Your task to perform on an android device: open app "Pandora - Music & Podcasts" (install if not already installed) Image 0: 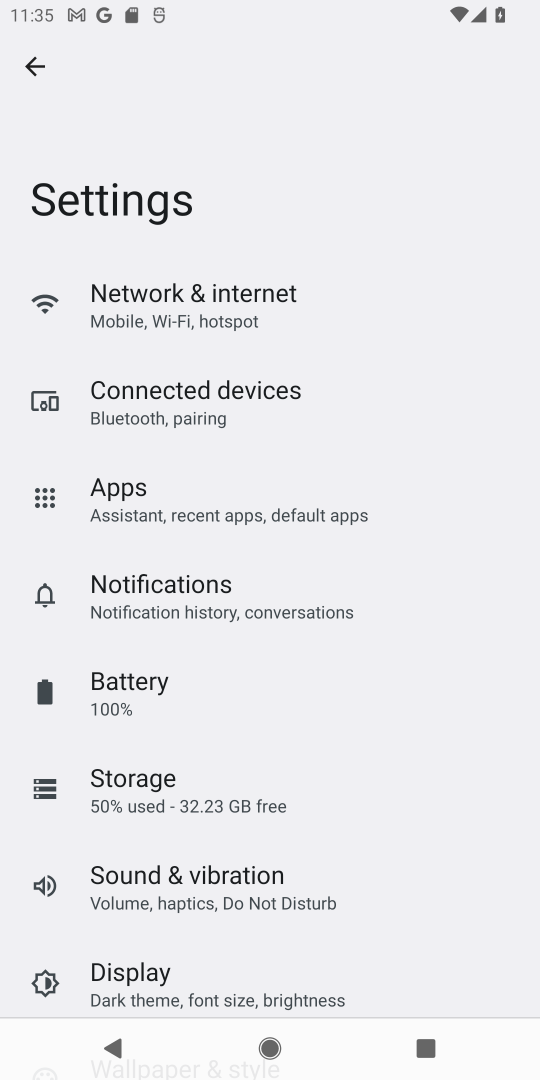
Step 0: press home button
Your task to perform on an android device: open app "Pandora - Music & Podcasts" (install if not already installed) Image 1: 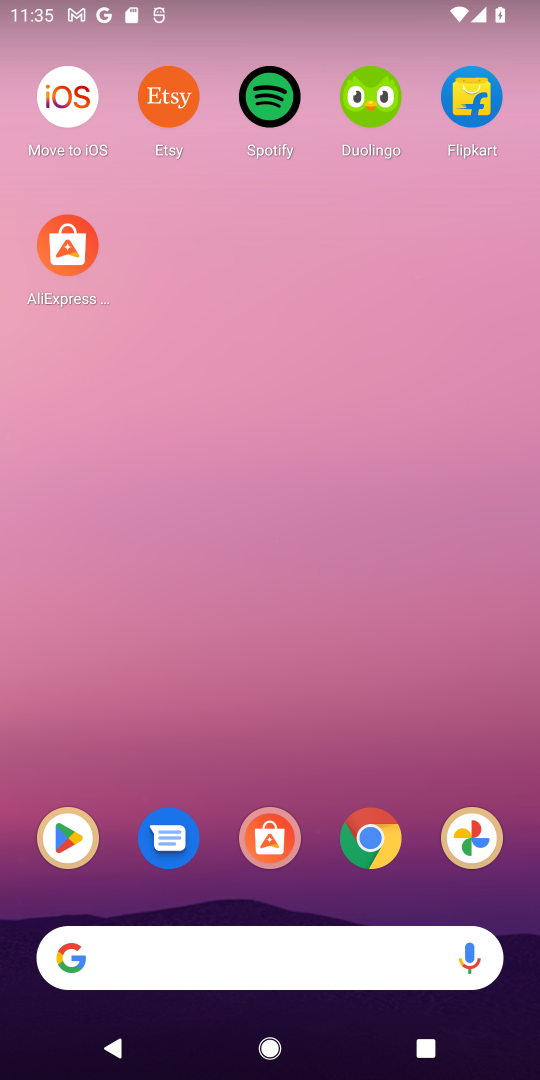
Step 1: click (78, 861)
Your task to perform on an android device: open app "Pandora - Music & Podcasts" (install if not already installed) Image 2: 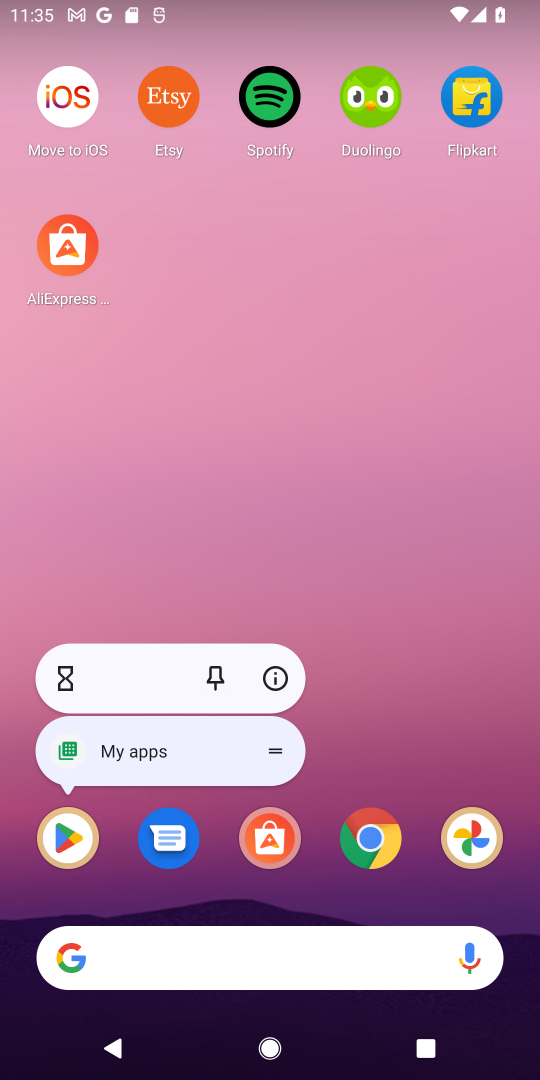
Step 2: click (72, 848)
Your task to perform on an android device: open app "Pandora - Music & Podcasts" (install if not already installed) Image 3: 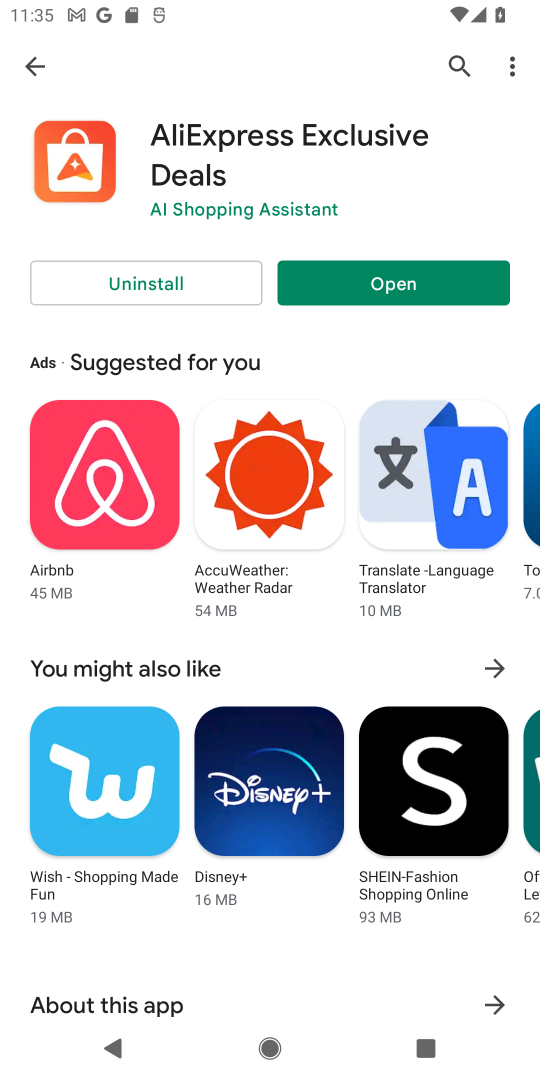
Step 3: click (452, 74)
Your task to perform on an android device: open app "Pandora - Music & Podcasts" (install if not already installed) Image 4: 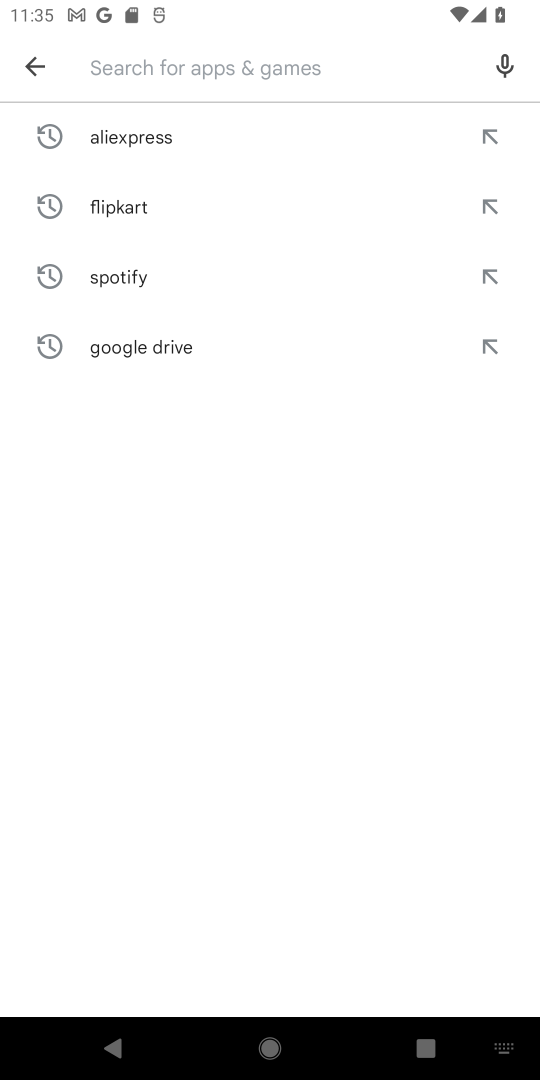
Step 4: type "Pandora - Music & Podcasts"
Your task to perform on an android device: open app "Pandora - Music & Podcasts" (install if not already installed) Image 5: 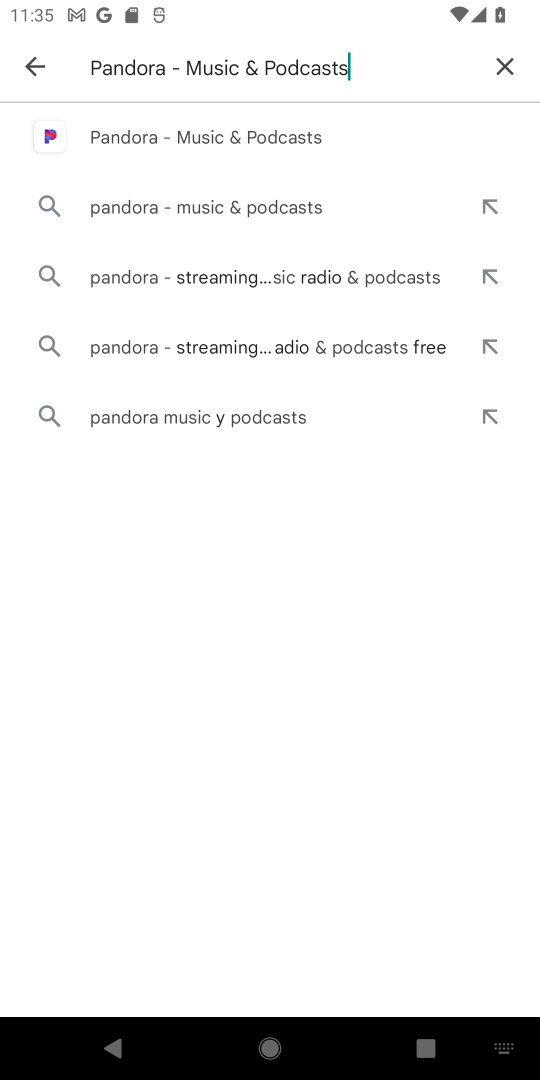
Step 5: click (246, 133)
Your task to perform on an android device: open app "Pandora - Music & Podcasts" (install if not already installed) Image 6: 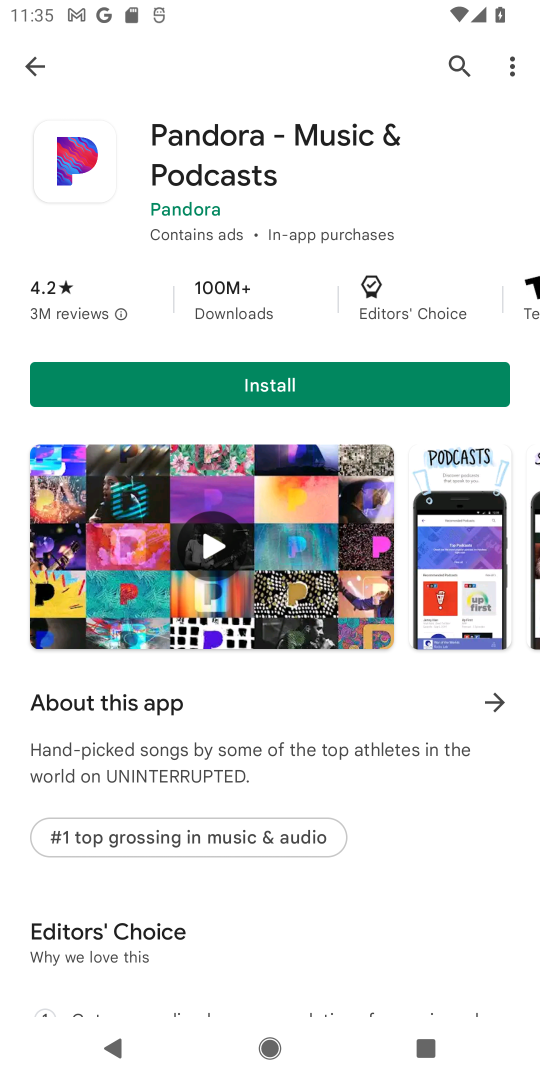
Step 6: click (219, 384)
Your task to perform on an android device: open app "Pandora - Music & Podcasts" (install if not already installed) Image 7: 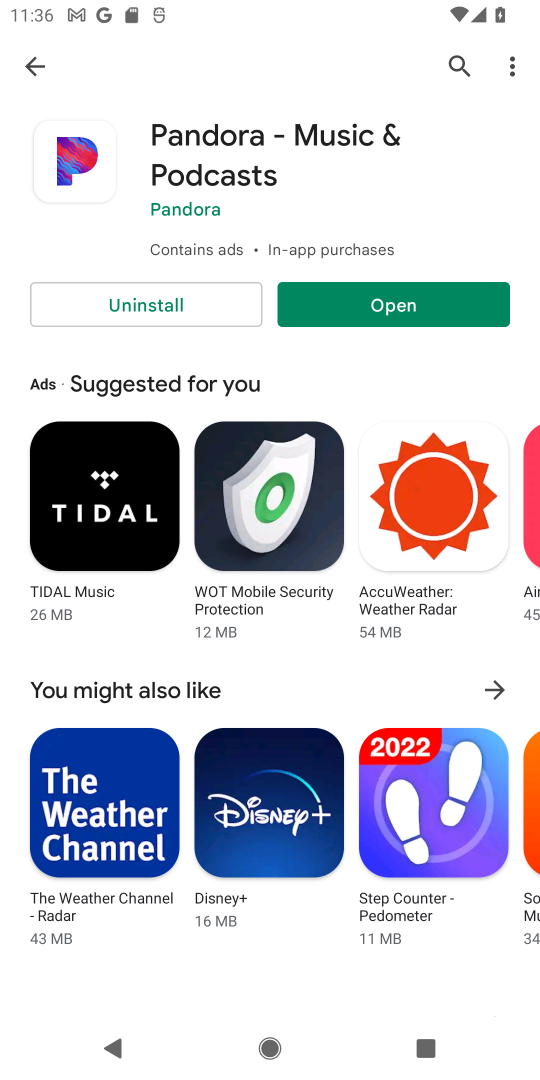
Step 7: click (367, 305)
Your task to perform on an android device: open app "Pandora - Music & Podcasts" (install if not already installed) Image 8: 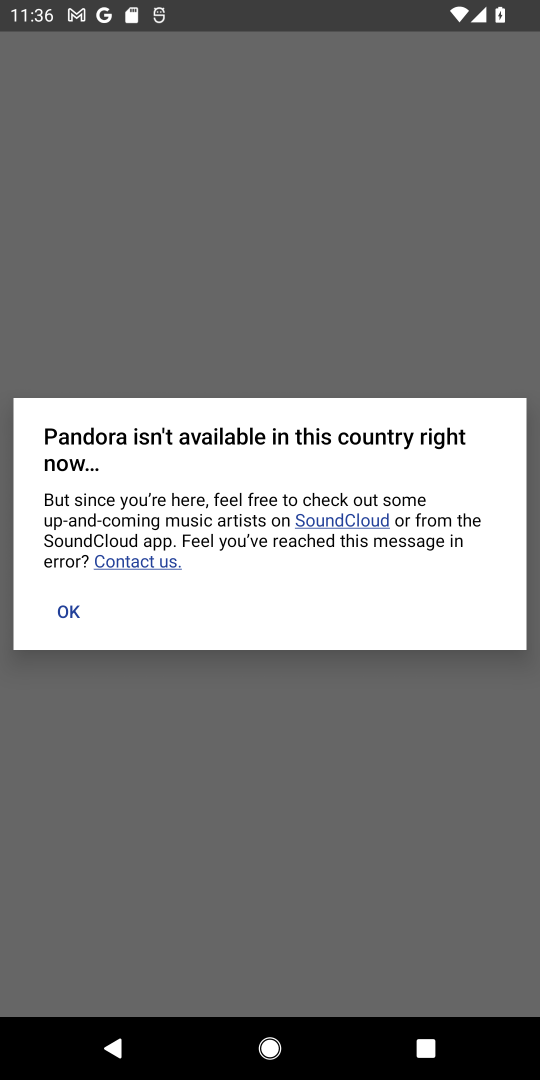
Step 8: task complete